Your task to perform on an android device: toggle notification dots Image 0: 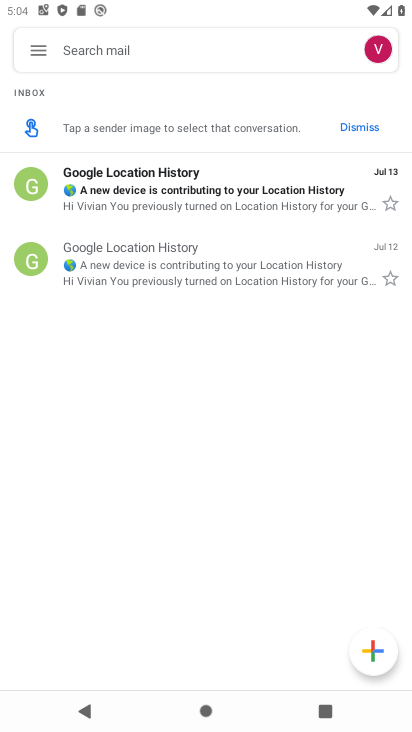
Step 0: press home button
Your task to perform on an android device: toggle notification dots Image 1: 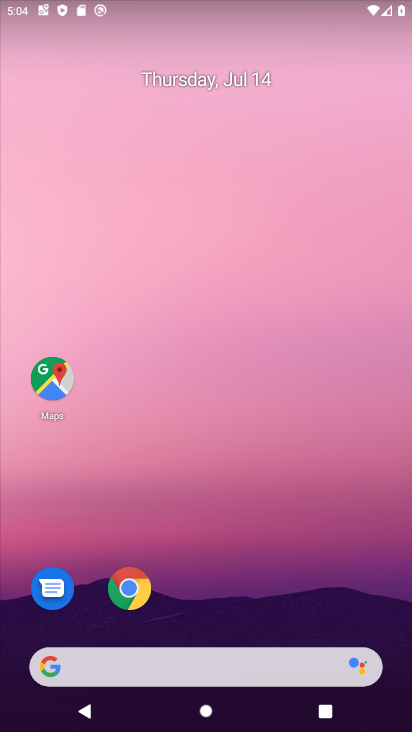
Step 1: drag from (192, 569) to (218, 380)
Your task to perform on an android device: toggle notification dots Image 2: 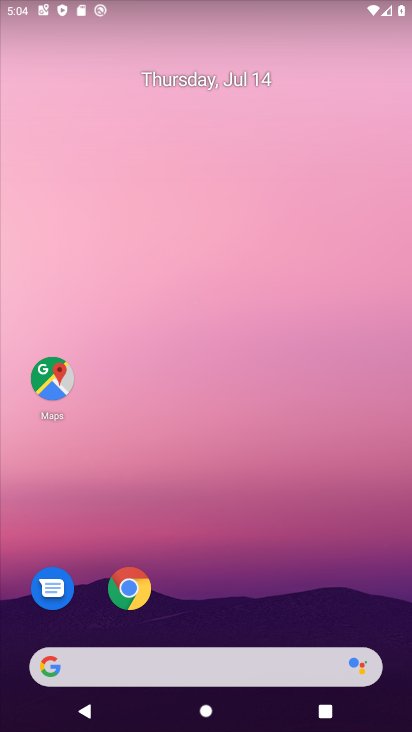
Step 2: drag from (235, 564) to (265, 299)
Your task to perform on an android device: toggle notification dots Image 3: 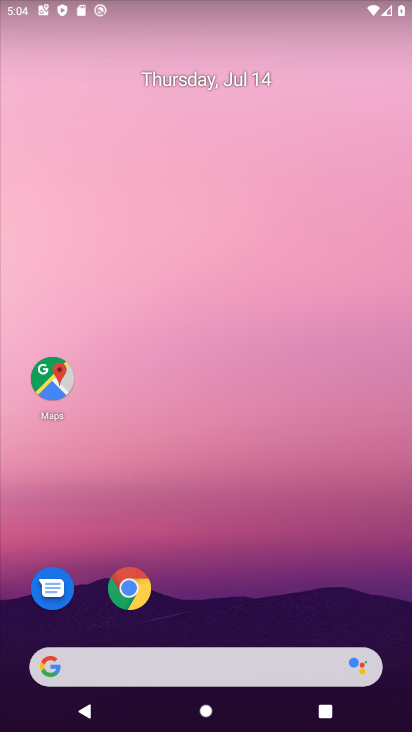
Step 3: drag from (188, 649) to (243, 197)
Your task to perform on an android device: toggle notification dots Image 4: 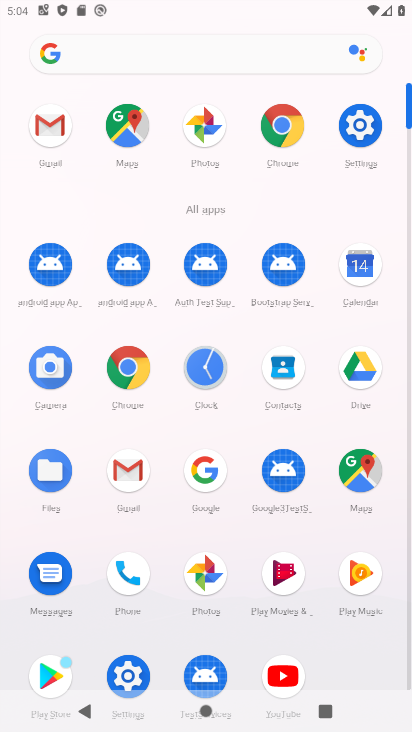
Step 4: click (363, 128)
Your task to perform on an android device: toggle notification dots Image 5: 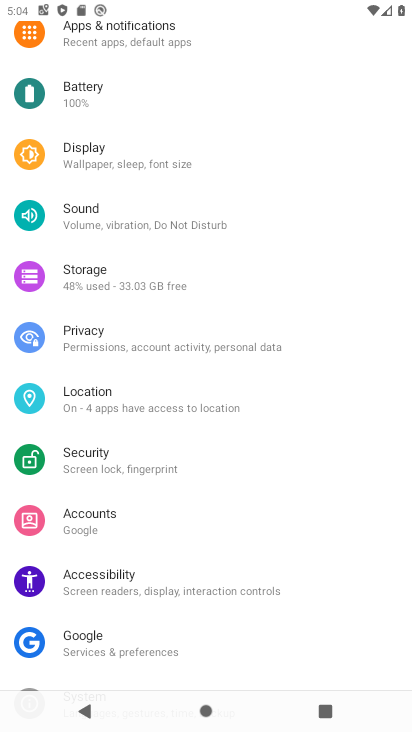
Step 5: drag from (162, 106) to (175, 486)
Your task to perform on an android device: toggle notification dots Image 6: 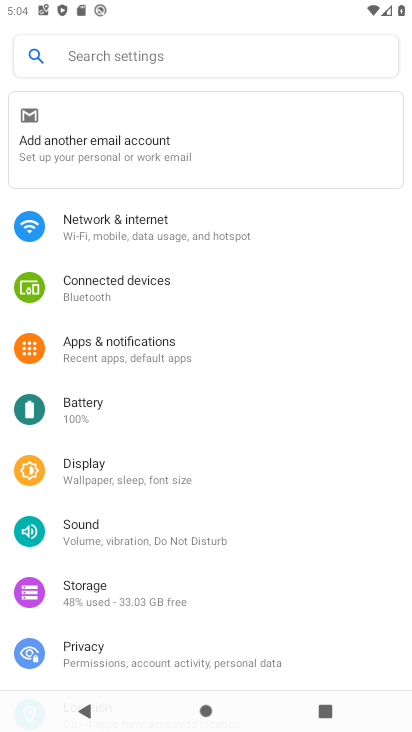
Step 6: click (160, 342)
Your task to perform on an android device: toggle notification dots Image 7: 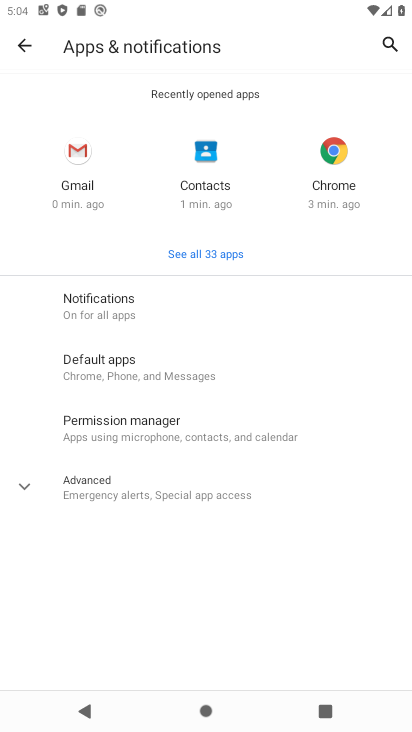
Step 7: click (108, 301)
Your task to perform on an android device: toggle notification dots Image 8: 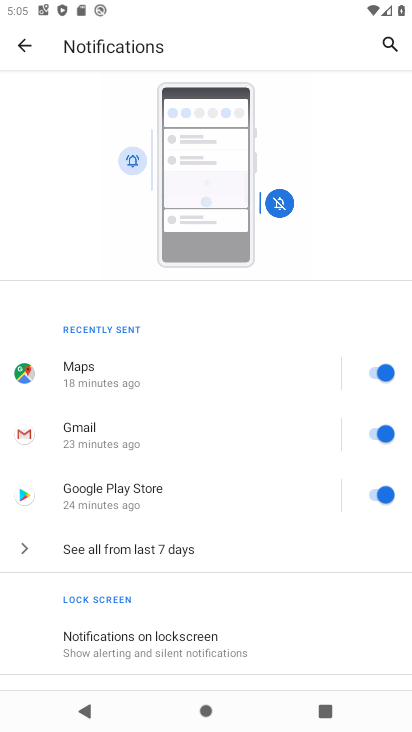
Step 8: drag from (162, 622) to (171, 417)
Your task to perform on an android device: toggle notification dots Image 9: 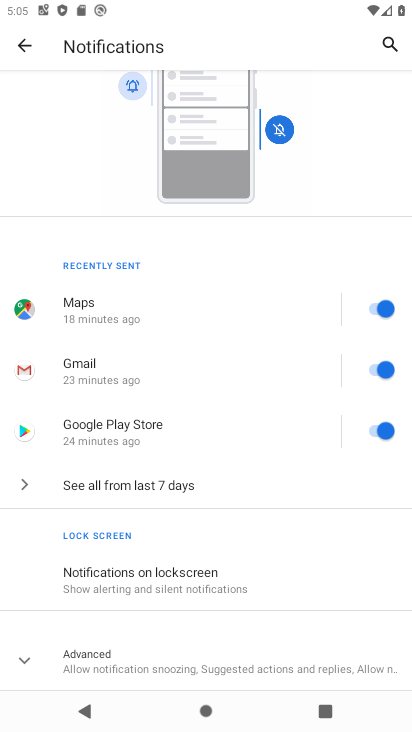
Step 9: click (107, 658)
Your task to perform on an android device: toggle notification dots Image 10: 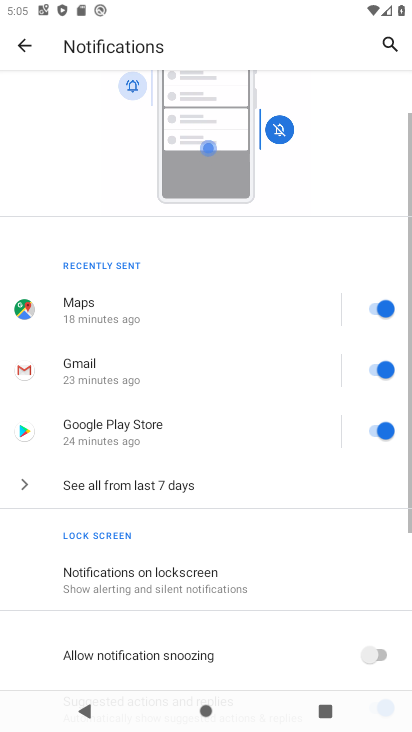
Step 10: drag from (227, 543) to (229, 368)
Your task to perform on an android device: toggle notification dots Image 11: 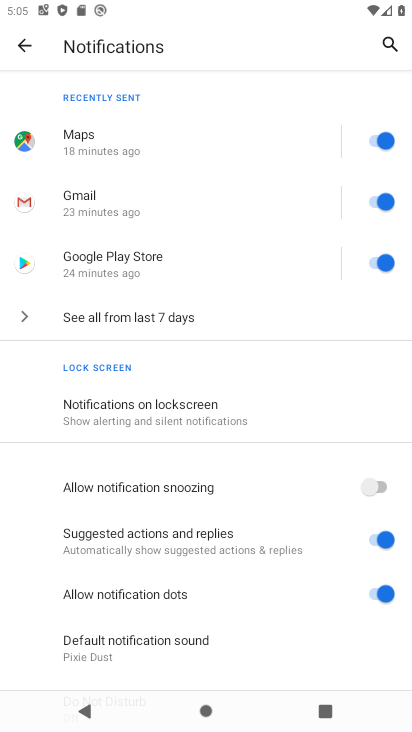
Step 11: click (375, 592)
Your task to perform on an android device: toggle notification dots Image 12: 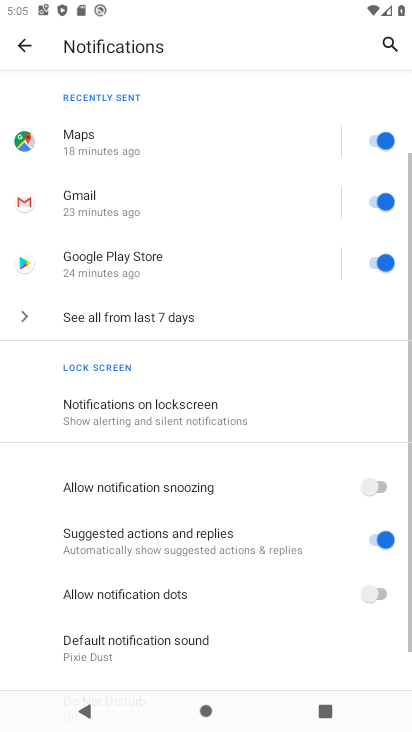
Step 12: task complete